Your task to perform on an android device: check out phone information Image 0: 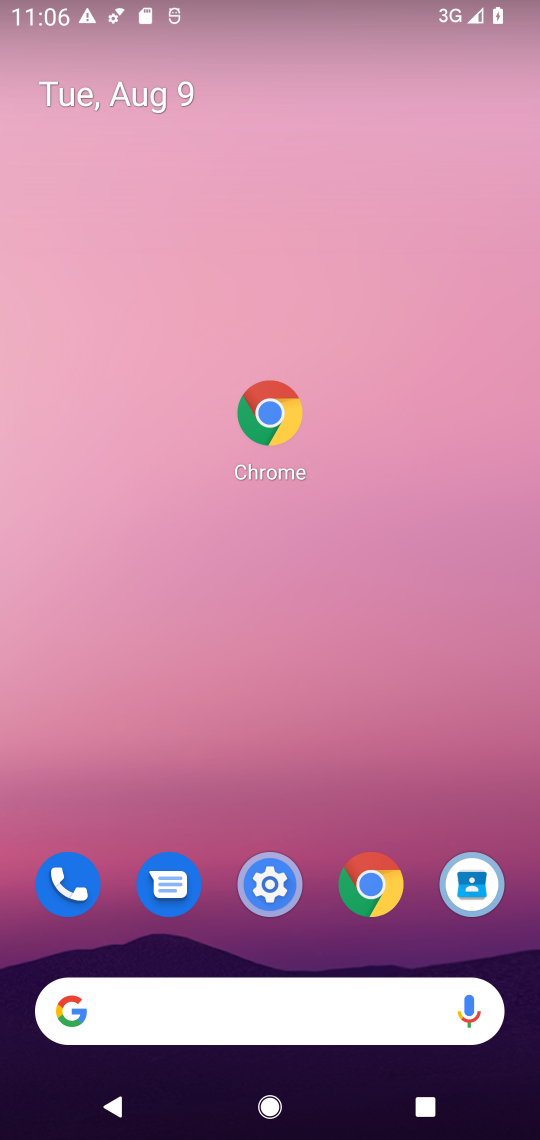
Step 0: click (55, 64)
Your task to perform on an android device: check out phone information Image 1: 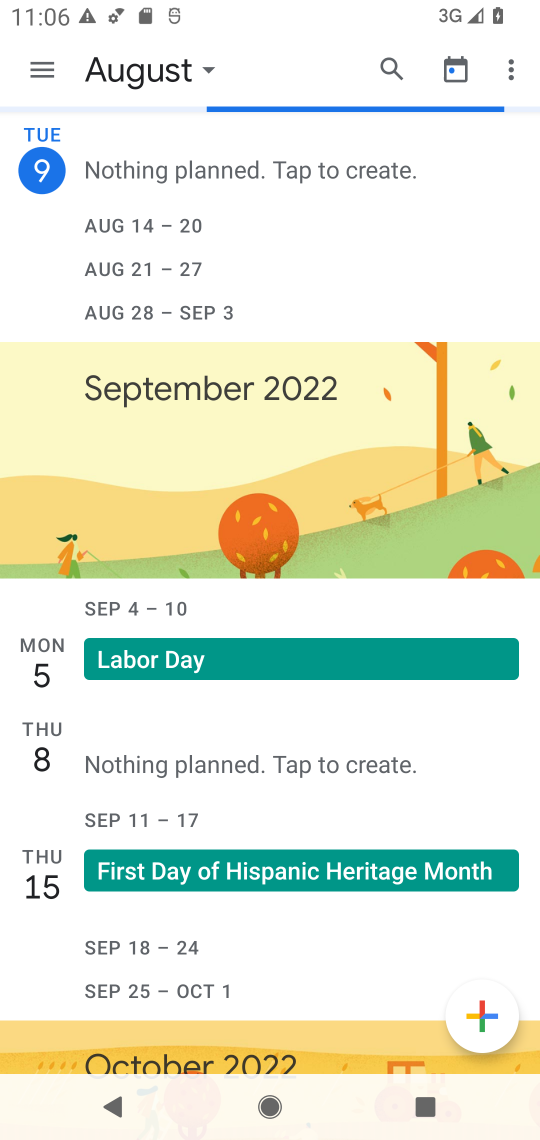
Step 1: drag from (344, 936) to (230, 206)
Your task to perform on an android device: check out phone information Image 2: 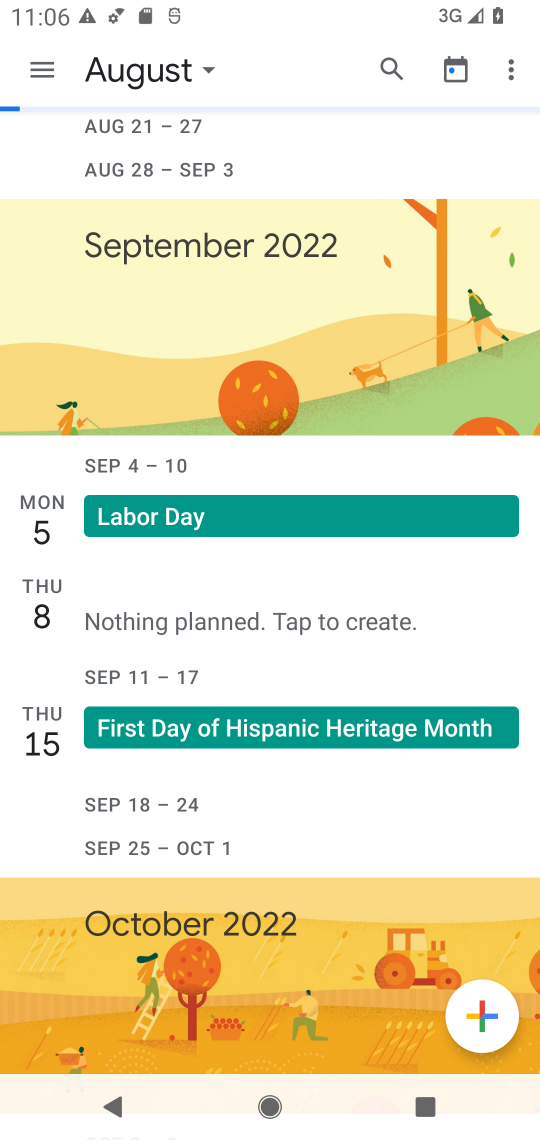
Step 2: press back button
Your task to perform on an android device: check out phone information Image 3: 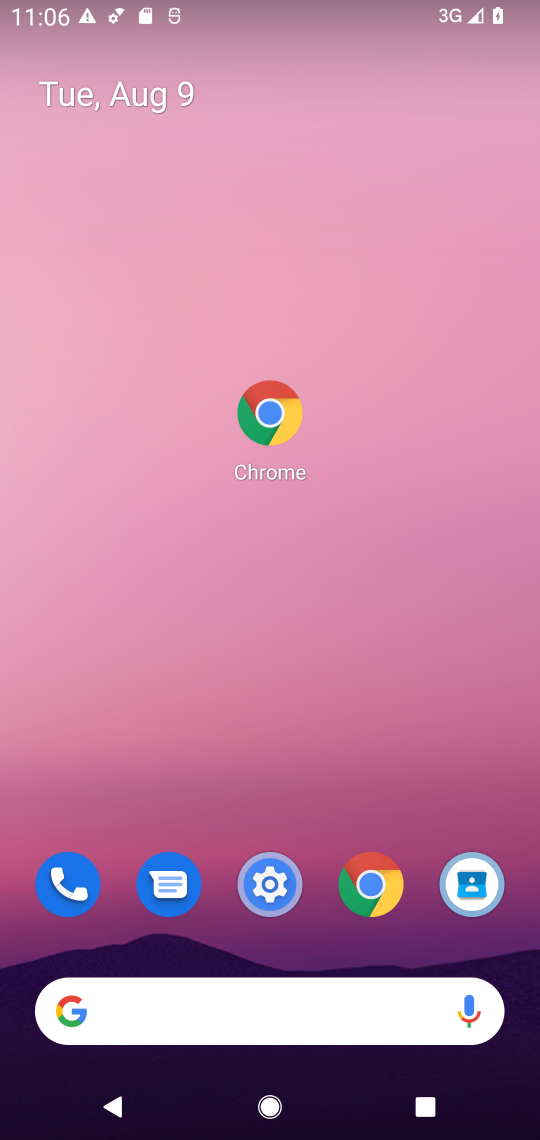
Step 3: drag from (266, 764) to (227, 361)
Your task to perform on an android device: check out phone information Image 4: 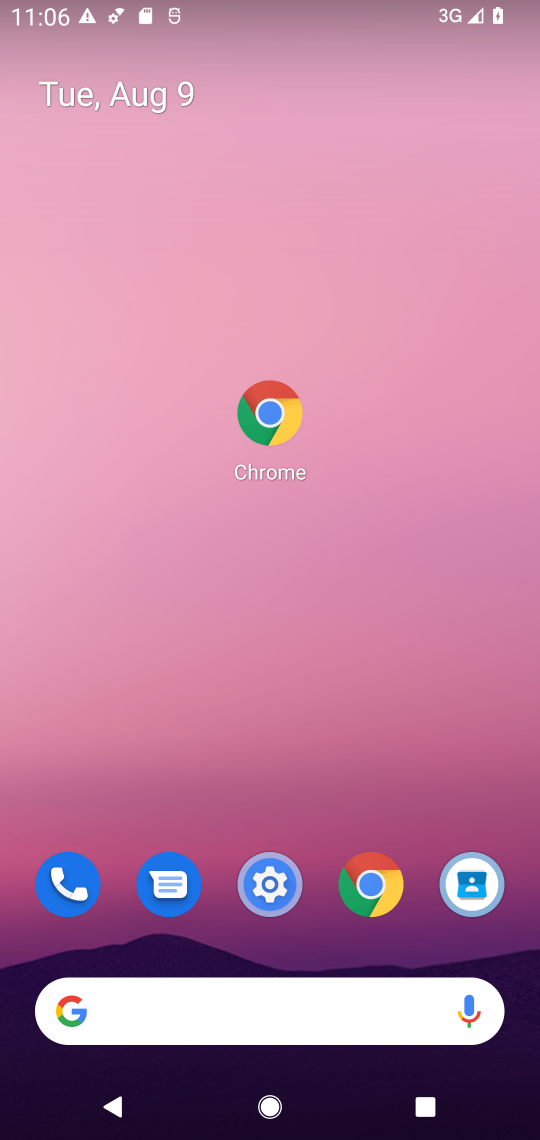
Step 4: drag from (332, 682) to (321, 317)
Your task to perform on an android device: check out phone information Image 5: 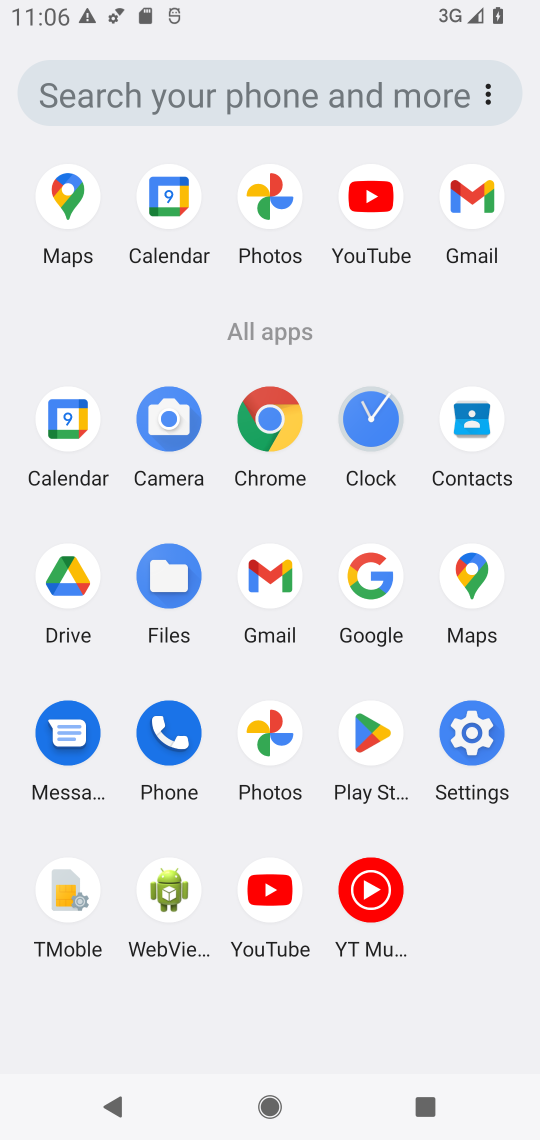
Step 5: click (489, 738)
Your task to perform on an android device: check out phone information Image 6: 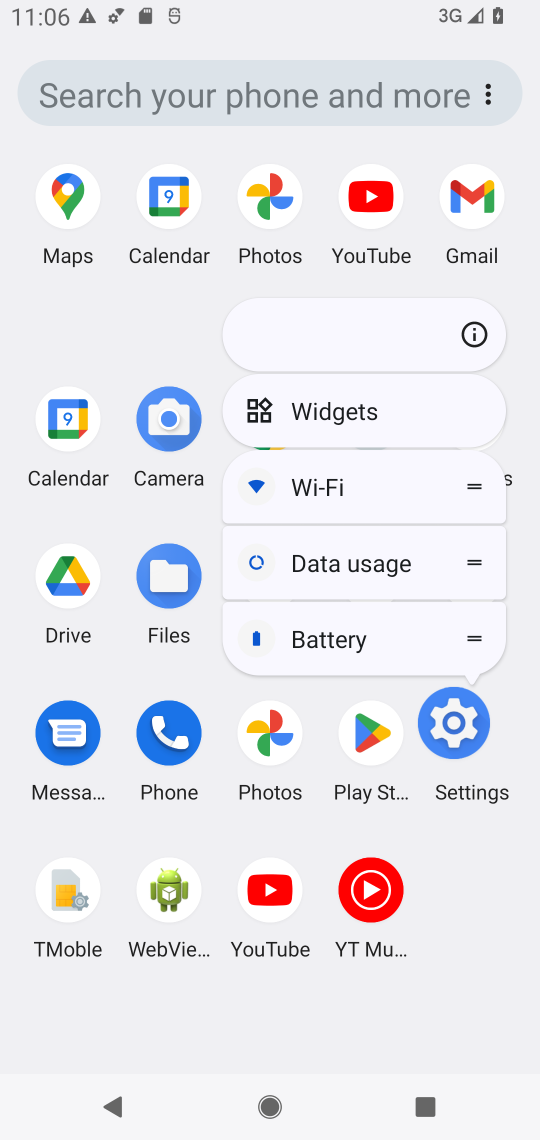
Step 6: click (482, 737)
Your task to perform on an android device: check out phone information Image 7: 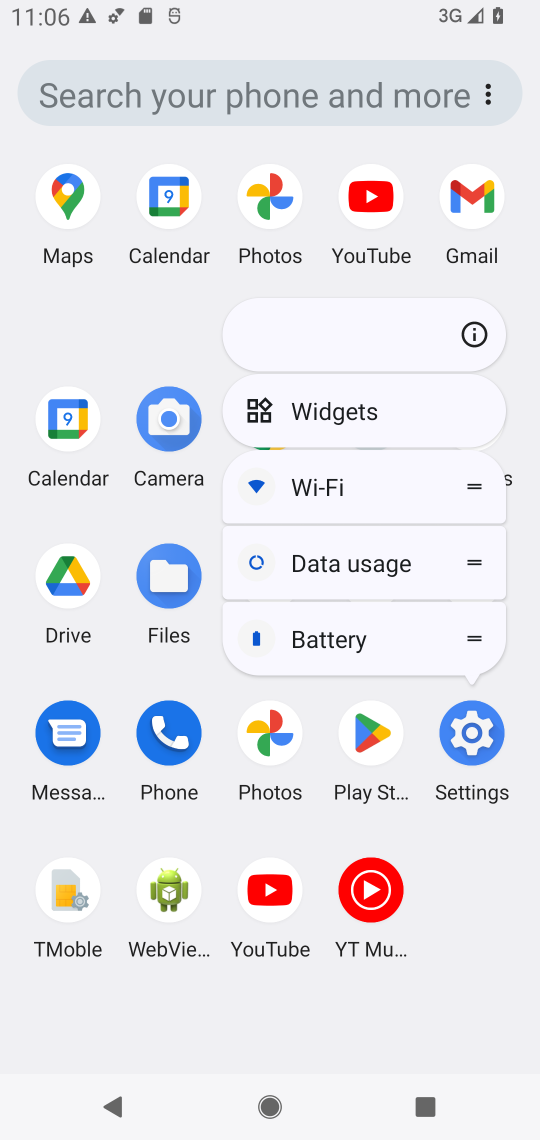
Step 7: click (485, 739)
Your task to perform on an android device: check out phone information Image 8: 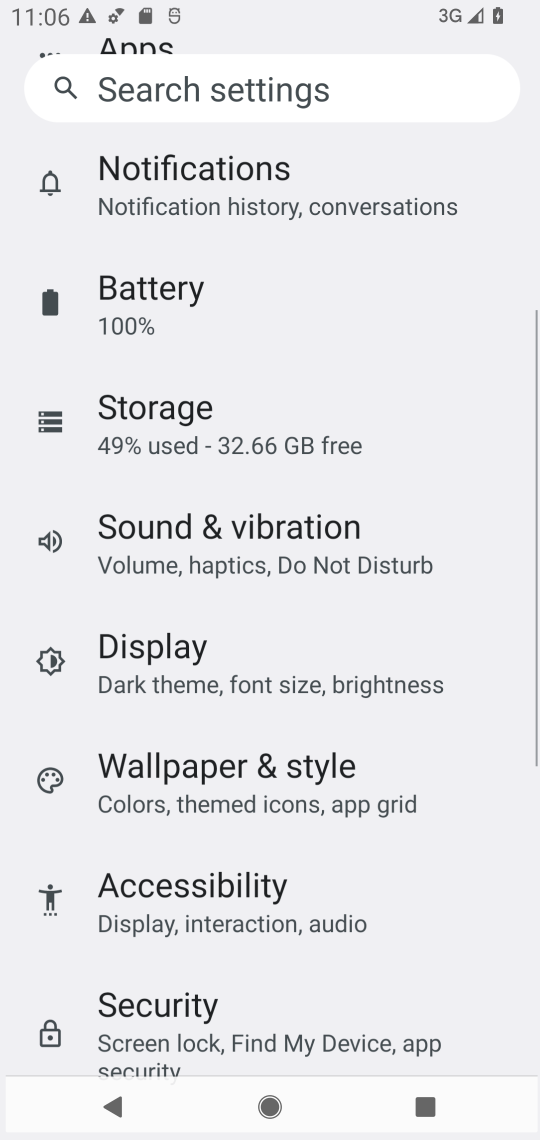
Step 8: click (479, 751)
Your task to perform on an android device: check out phone information Image 9: 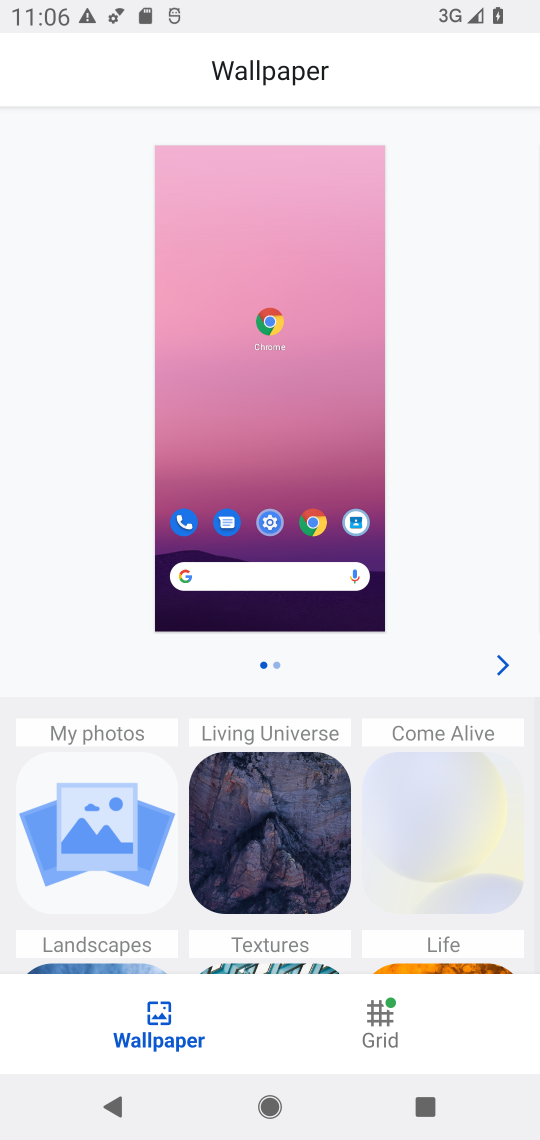
Step 9: press back button
Your task to perform on an android device: check out phone information Image 10: 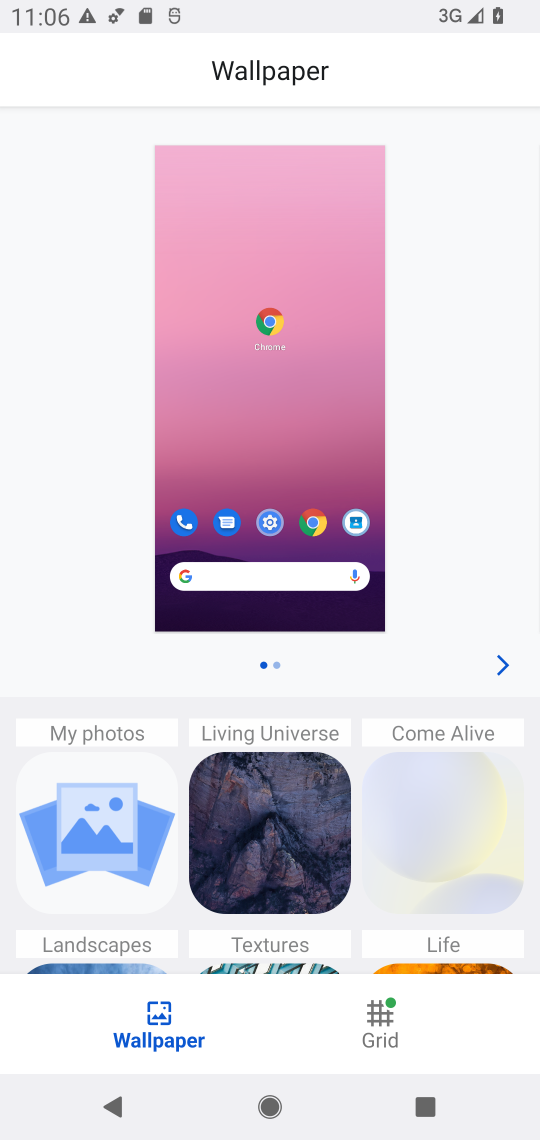
Step 10: press back button
Your task to perform on an android device: check out phone information Image 11: 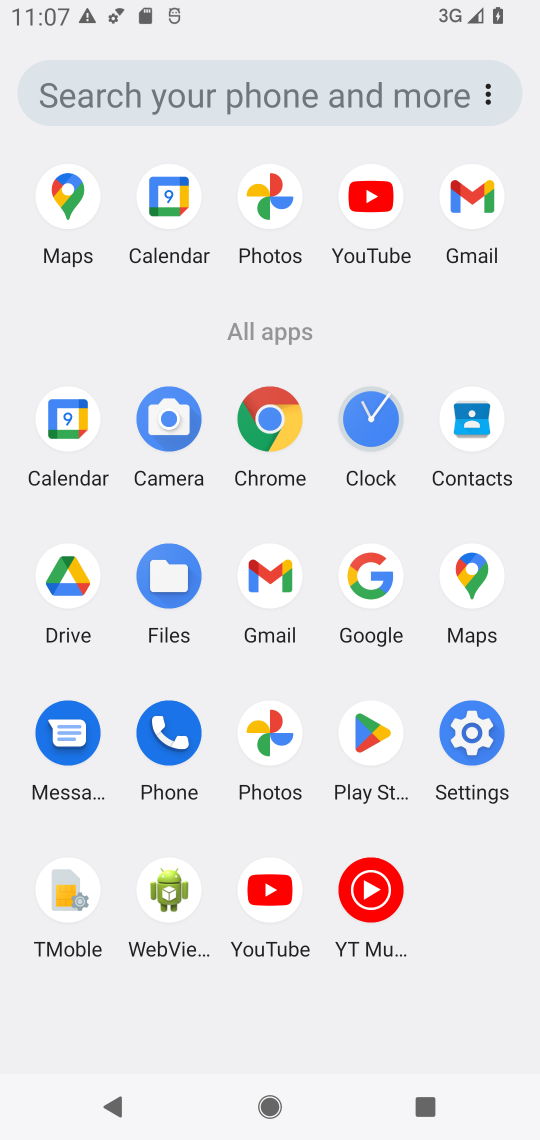
Step 11: click (487, 746)
Your task to perform on an android device: check out phone information Image 12: 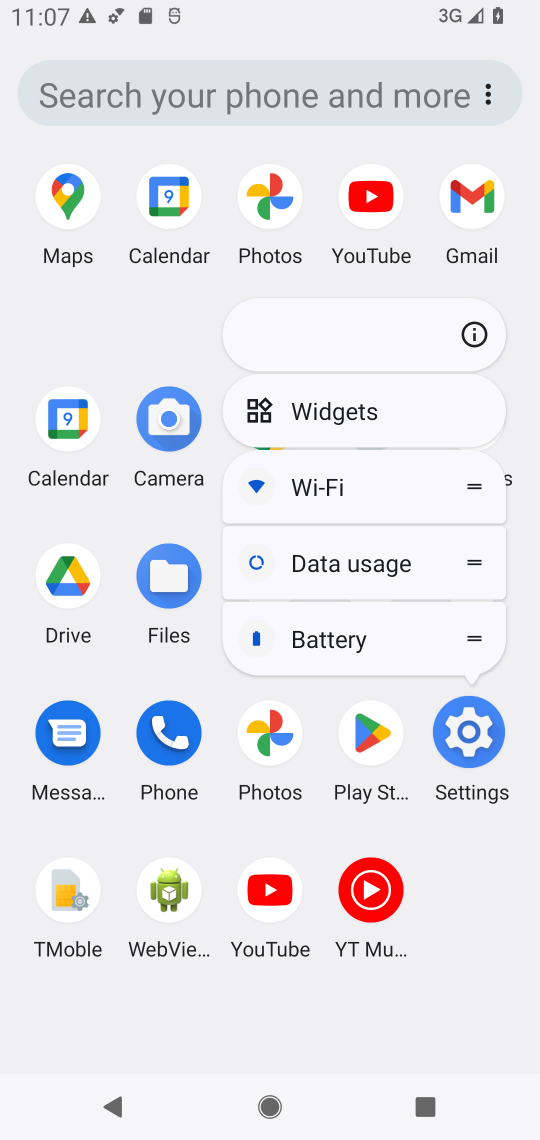
Step 12: click (462, 716)
Your task to perform on an android device: check out phone information Image 13: 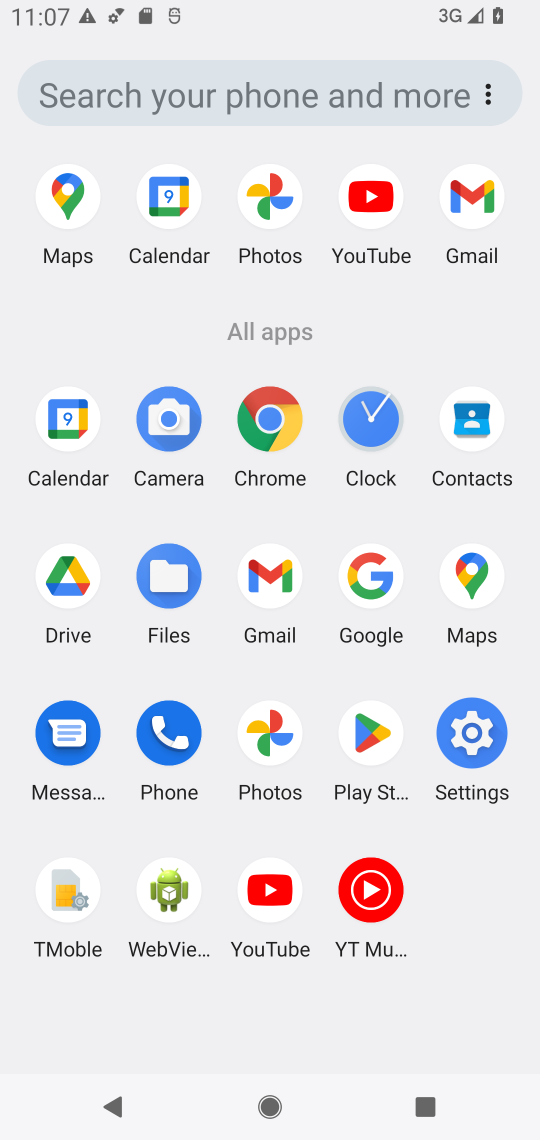
Step 13: click (447, 721)
Your task to perform on an android device: check out phone information Image 14: 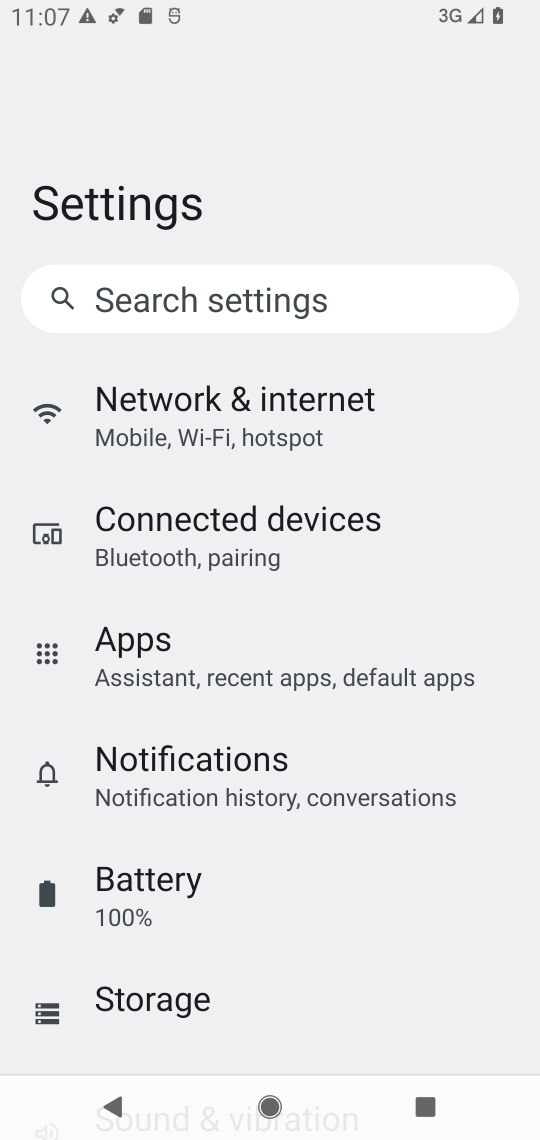
Step 14: drag from (195, 646) to (163, 251)
Your task to perform on an android device: check out phone information Image 15: 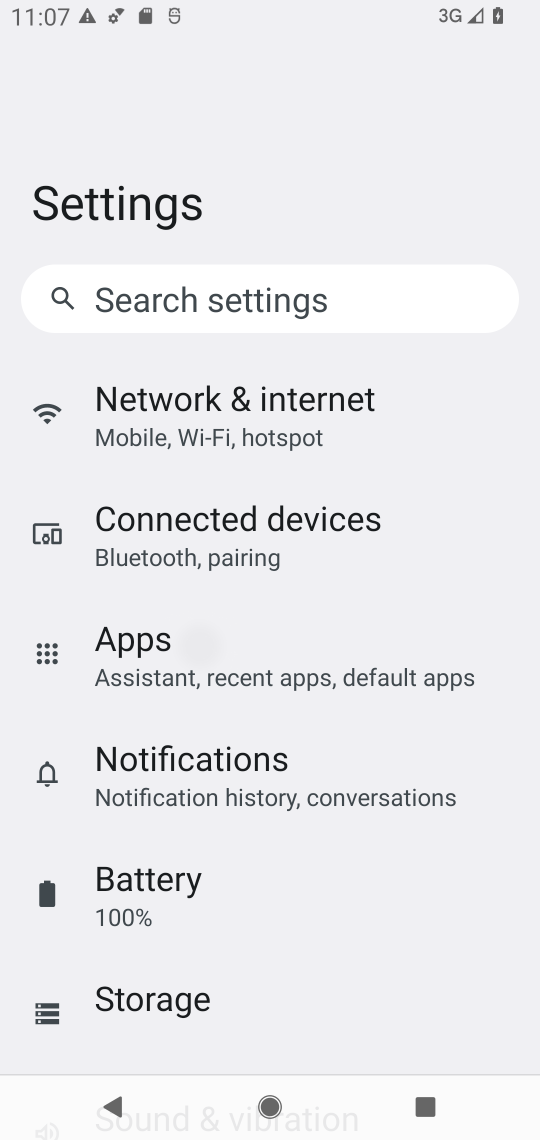
Step 15: drag from (278, 734) to (270, 517)
Your task to perform on an android device: check out phone information Image 16: 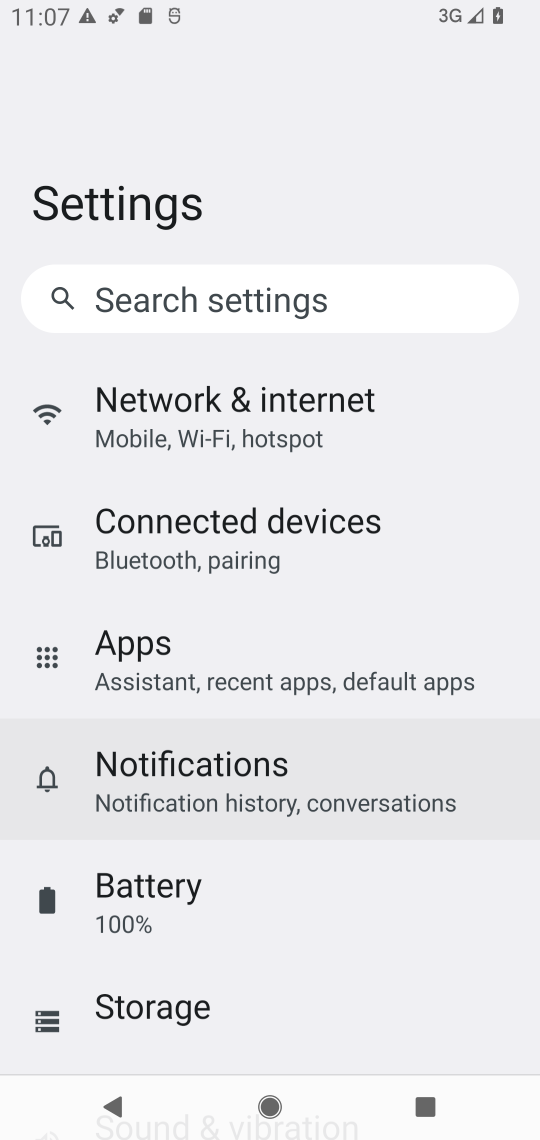
Step 16: drag from (275, 1075) to (273, 555)
Your task to perform on an android device: check out phone information Image 17: 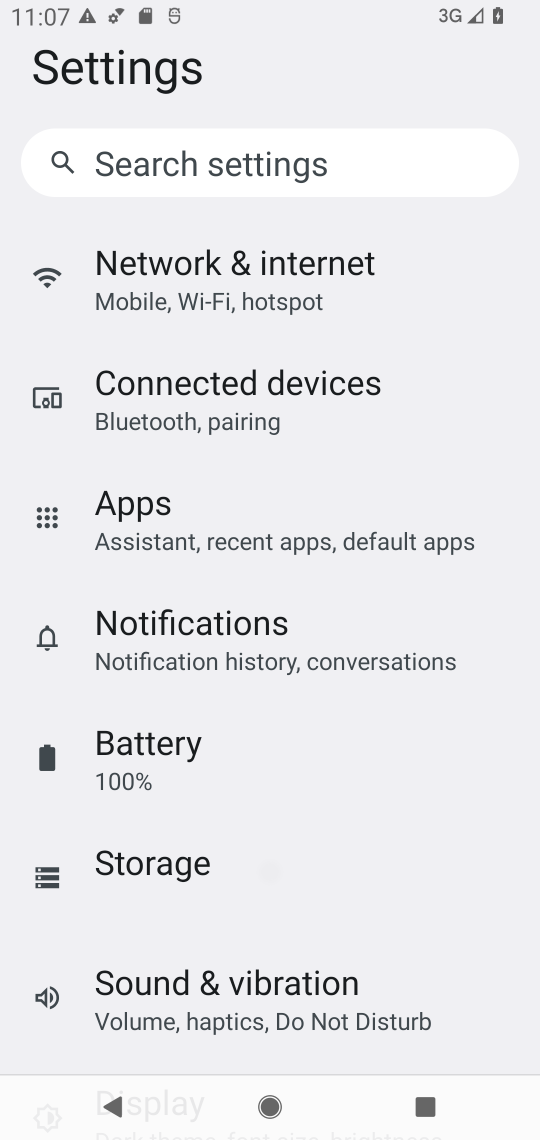
Step 17: drag from (321, 886) to (321, 485)
Your task to perform on an android device: check out phone information Image 18: 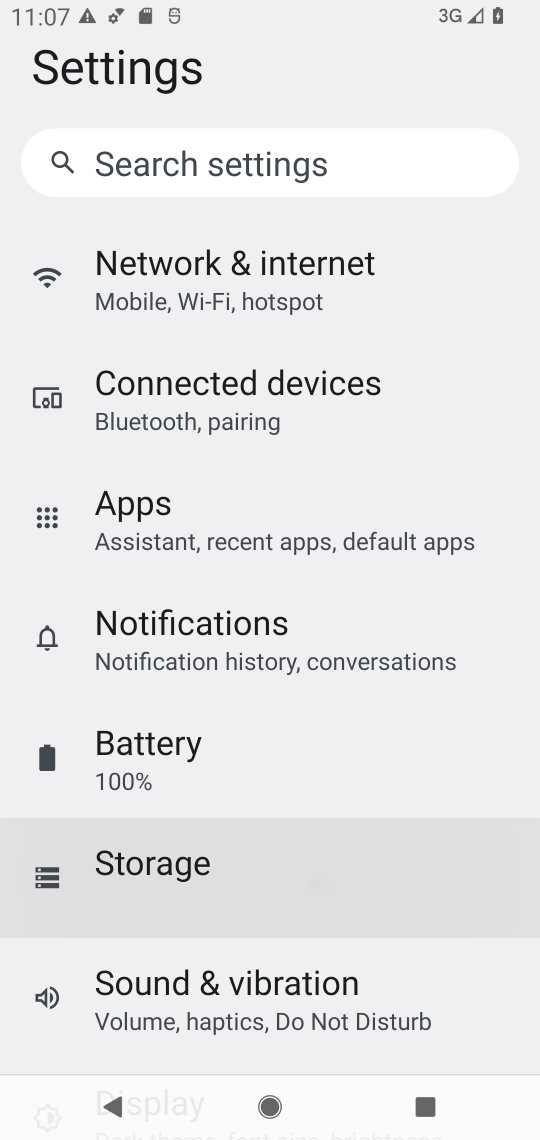
Step 18: drag from (250, 556) to (250, 430)
Your task to perform on an android device: check out phone information Image 19: 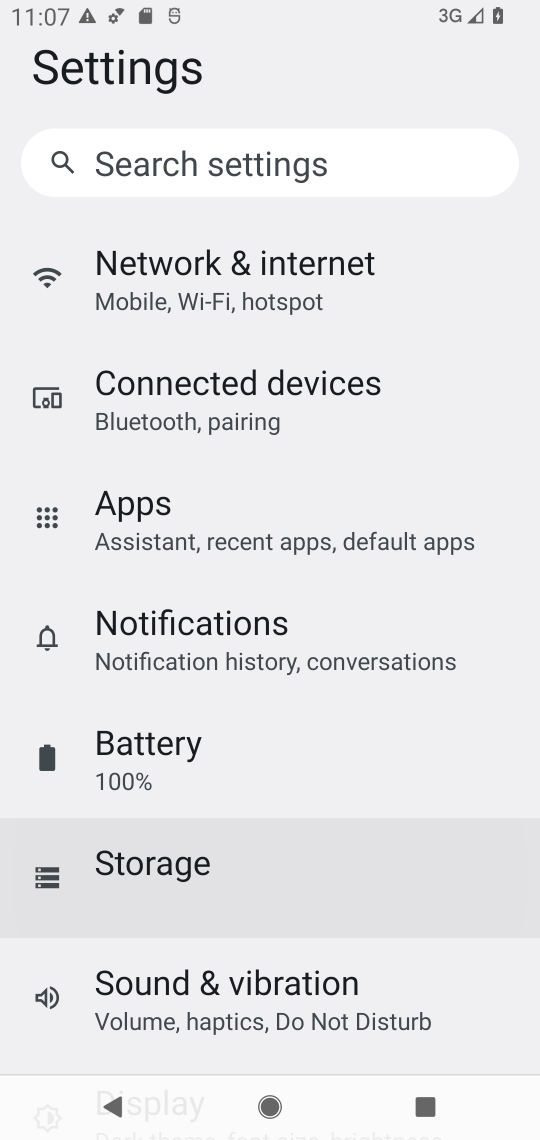
Step 19: drag from (314, 881) to (349, 420)
Your task to perform on an android device: check out phone information Image 20: 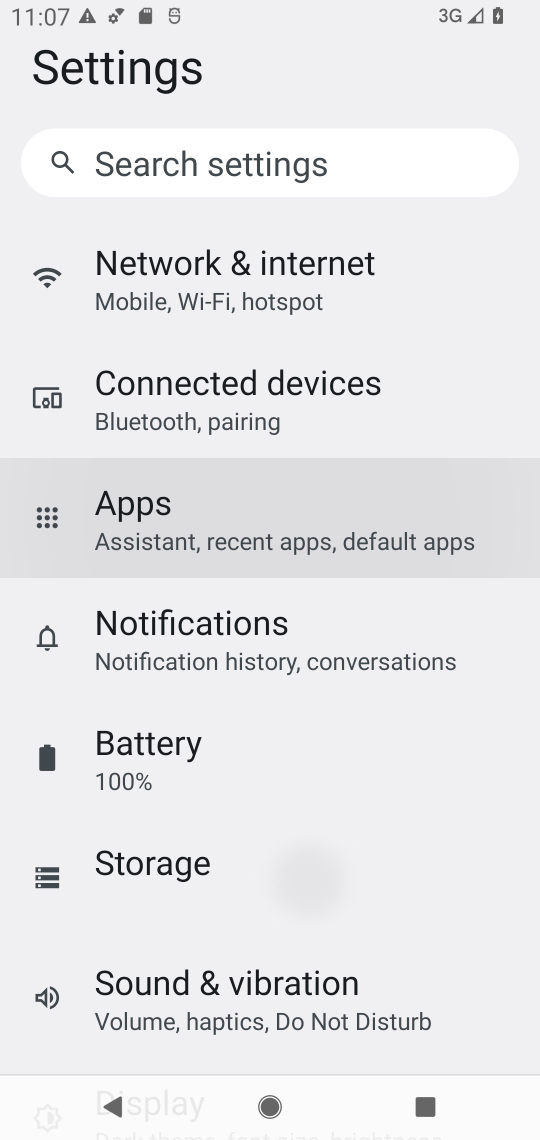
Step 20: drag from (319, 786) to (319, 389)
Your task to perform on an android device: check out phone information Image 21: 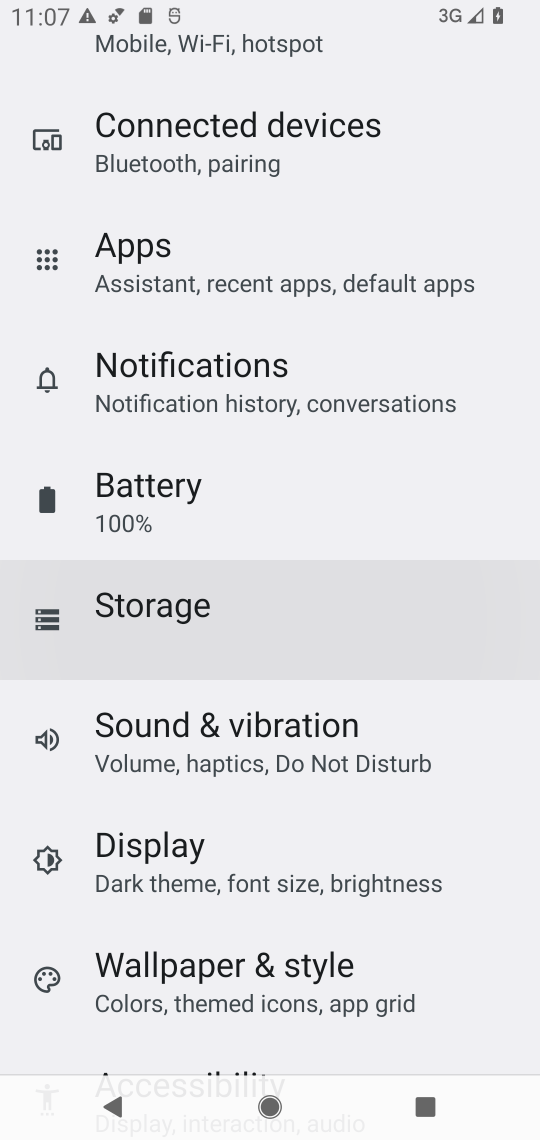
Step 21: drag from (218, 805) to (217, 336)
Your task to perform on an android device: check out phone information Image 22: 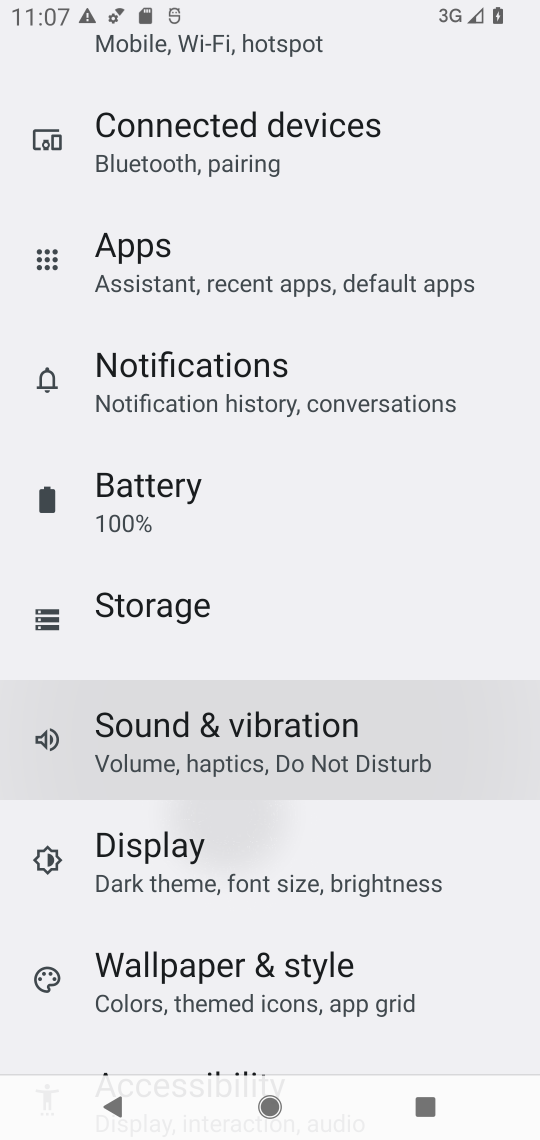
Step 22: drag from (233, 879) to (229, 200)
Your task to perform on an android device: check out phone information Image 23: 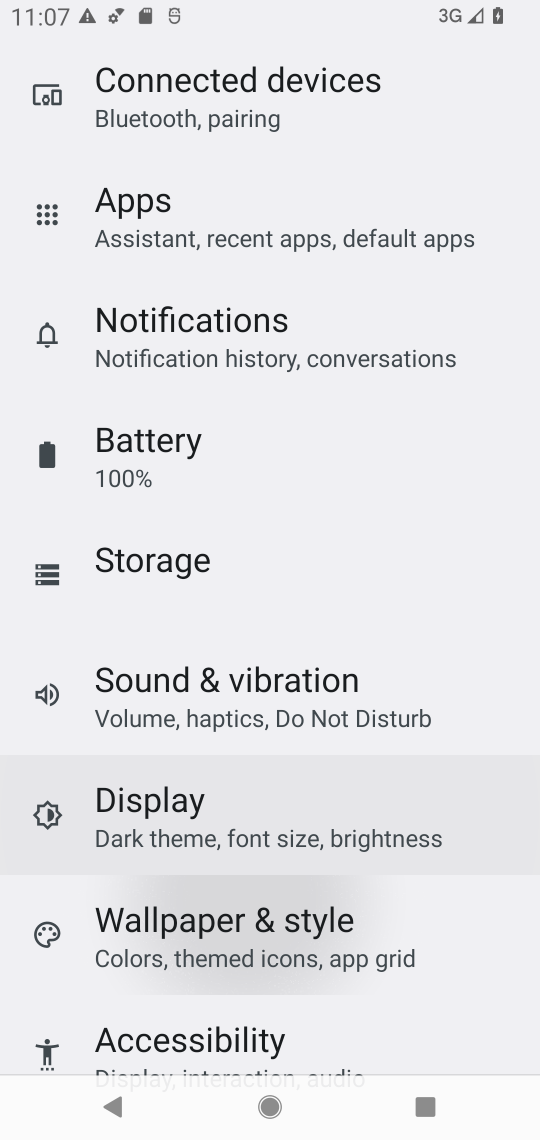
Step 23: drag from (262, 881) to (224, 476)
Your task to perform on an android device: check out phone information Image 24: 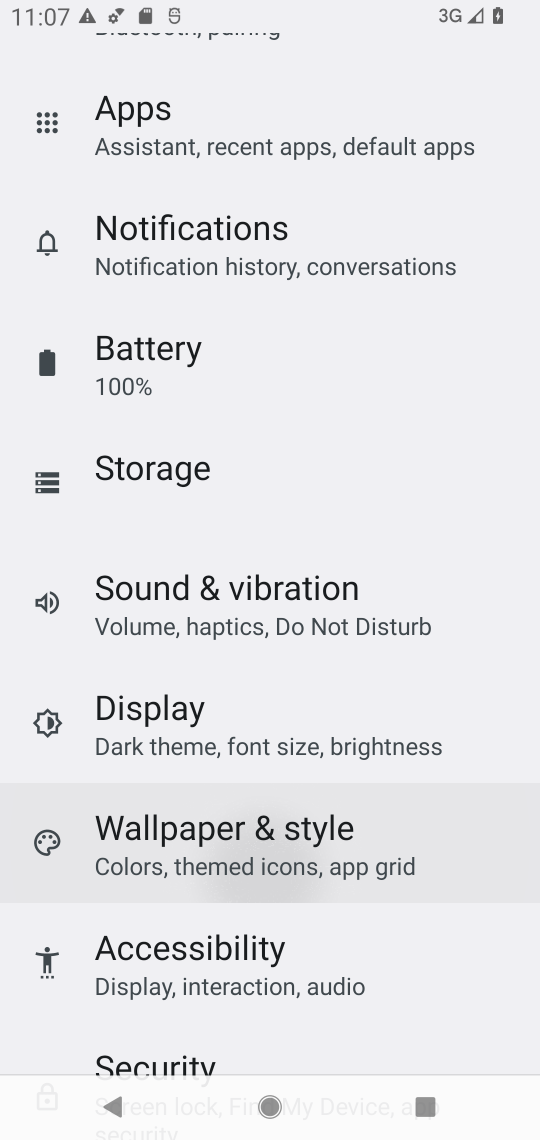
Step 24: drag from (270, 863) to (279, 340)
Your task to perform on an android device: check out phone information Image 25: 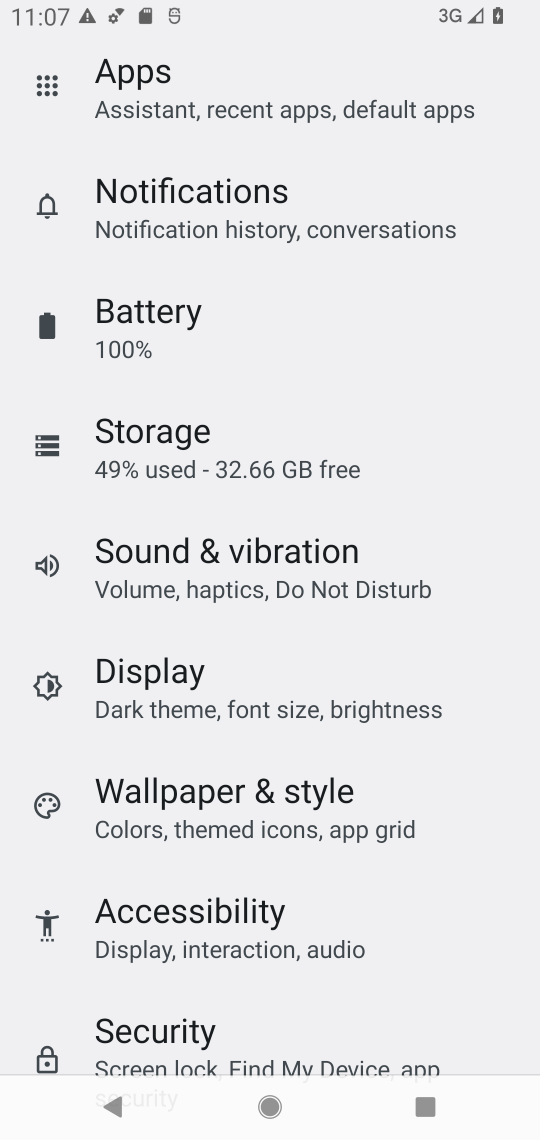
Step 25: drag from (268, 909) to (222, 438)
Your task to perform on an android device: check out phone information Image 26: 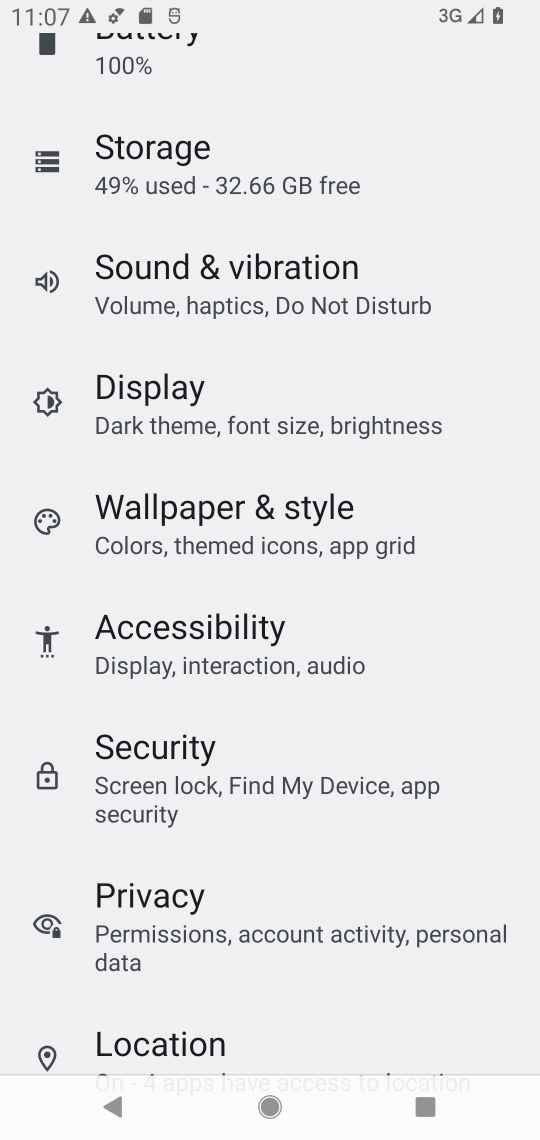
Step 26: drag from (231, 873) to (148, 421)
Your task to perform on an android device: check out phone information Image 27: 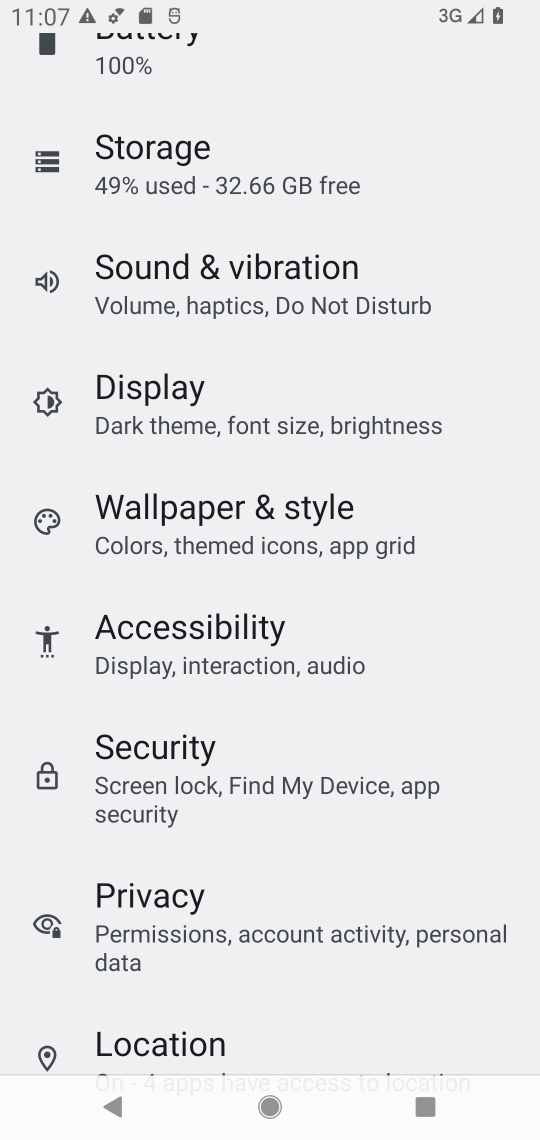
Step 27: drag from (231, 964) to (196, 418)
Your task to perform on an android device: check out phone information Image 28: 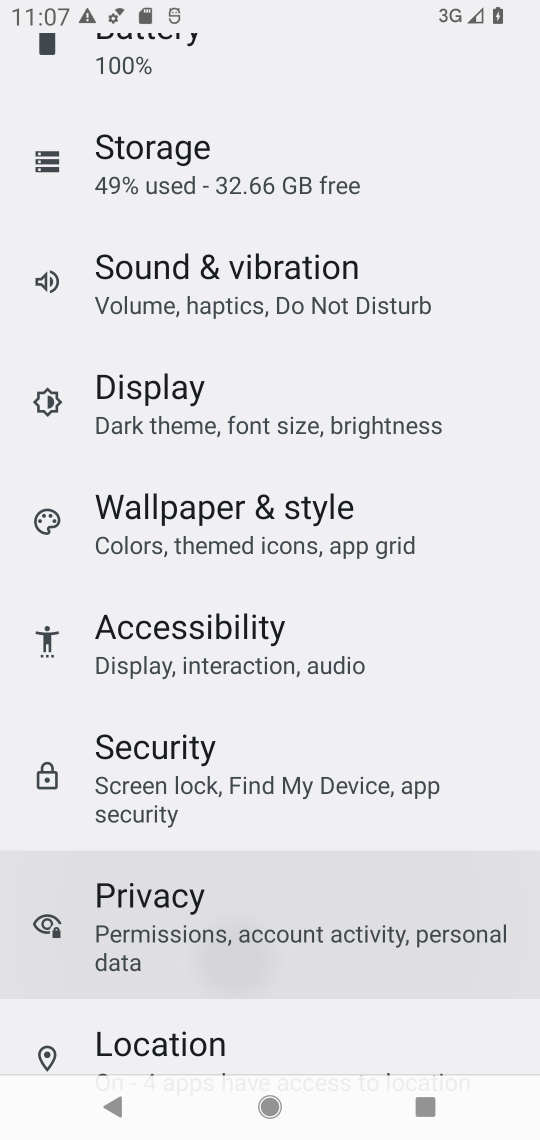
Step 28: drag from (297, 925) to (235, 482)
Your task to perform on an android device: check out phone information Image 29: 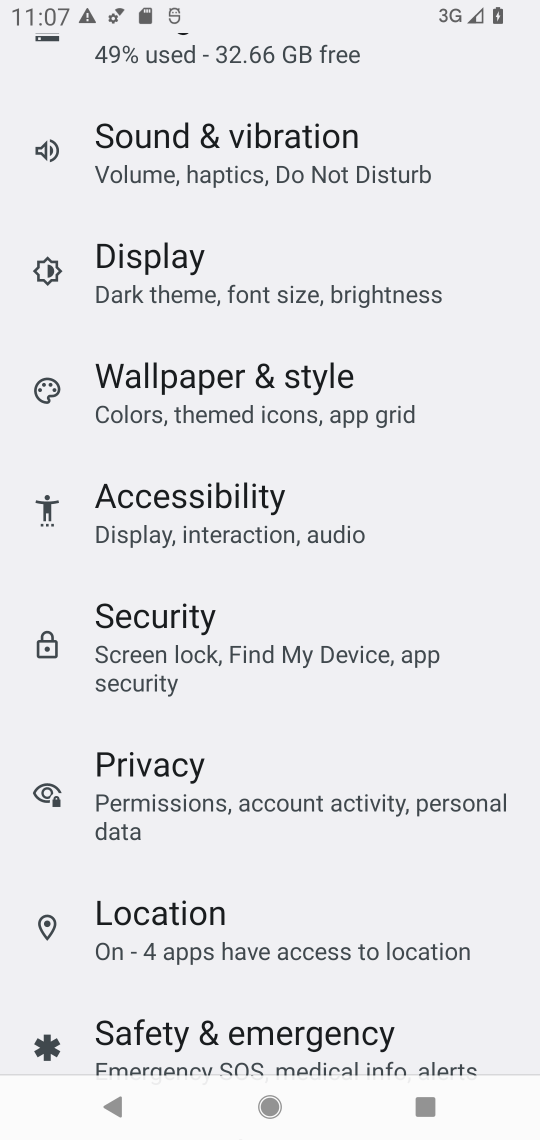
Step 29: drag from (254, 828) to (210, 348)
Your task to perform on an android device: check out phone information Image 30: 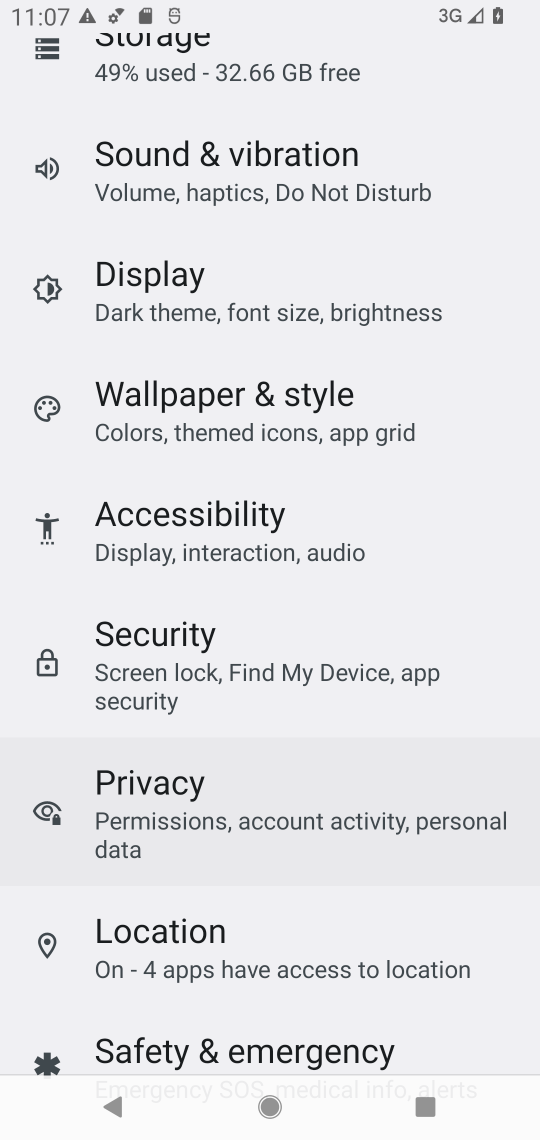
Step 30: drag from (328, 833) to (315, 460)
Your task to perform on an android device: check out phone information Image 31: 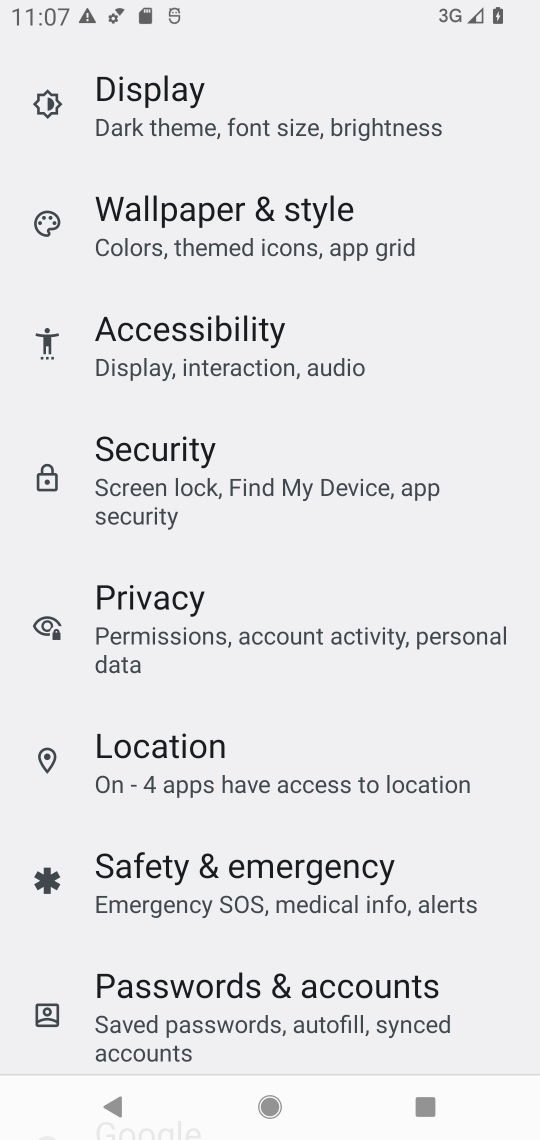
Step 31: drag from (205, 901) to (189, 710)
Your task to perform on an android device: check out phone information Image 32: 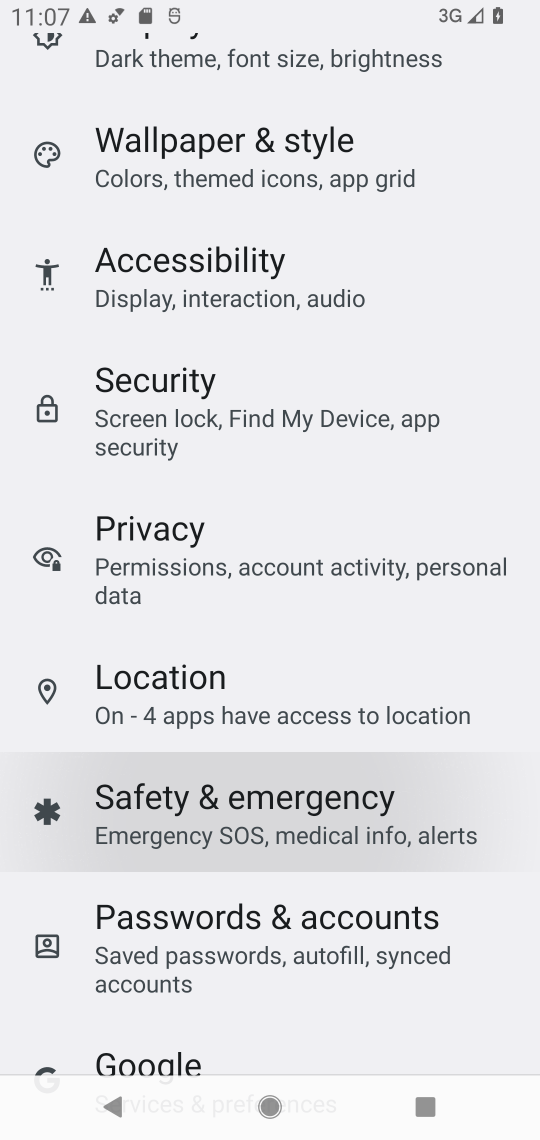
Step 32: click (267, 727)
Your task to perform on an android device: check out phone information Image 33: 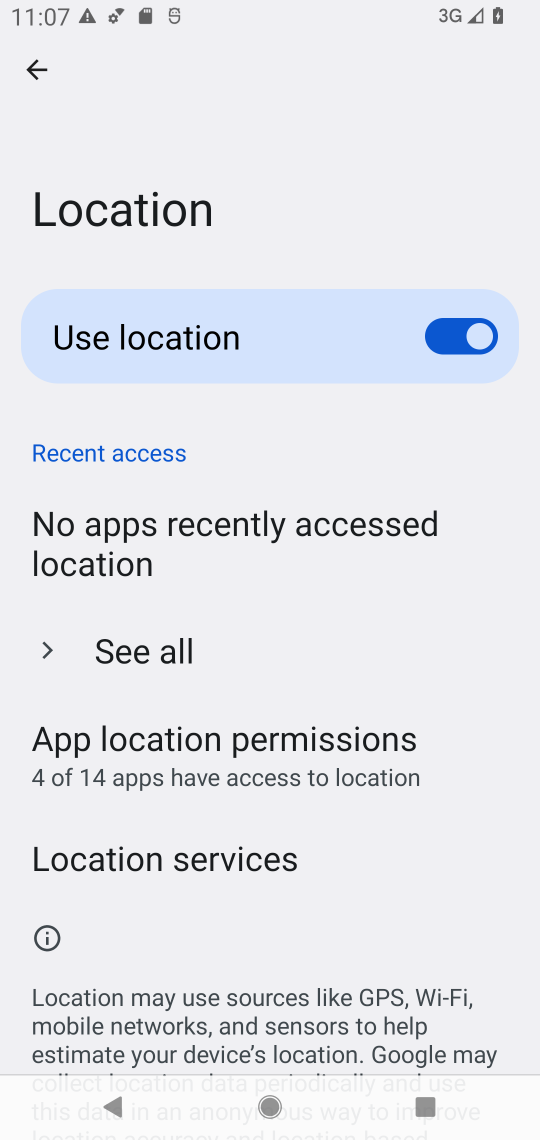
Step 33: click (166, 745)
Your task to perform on an android device: check out phone information Image 34: 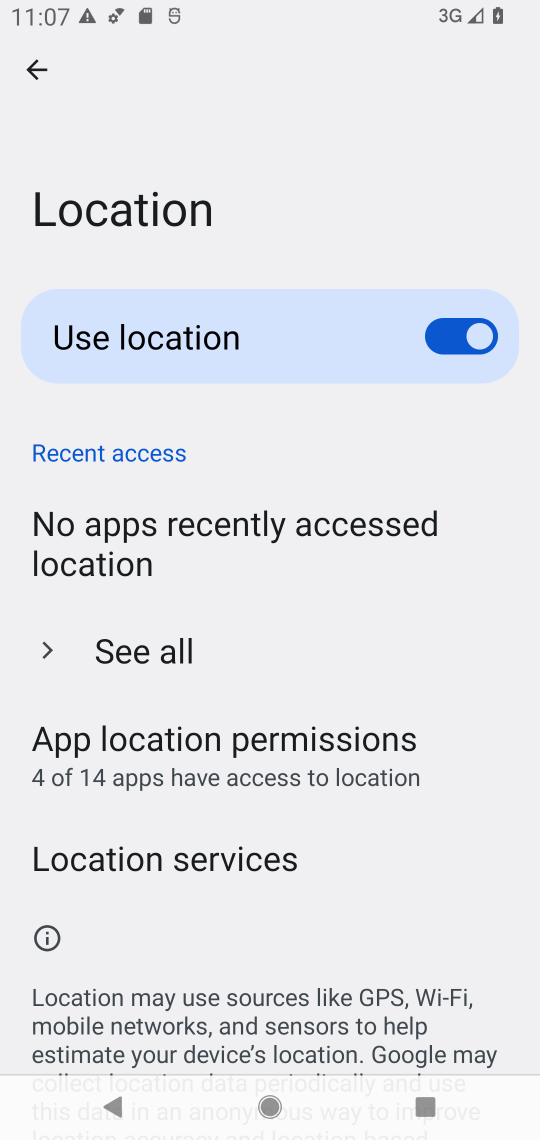
Step 34: click (171, 737)
Your task to perform on an android device: check out phone information Image 35: 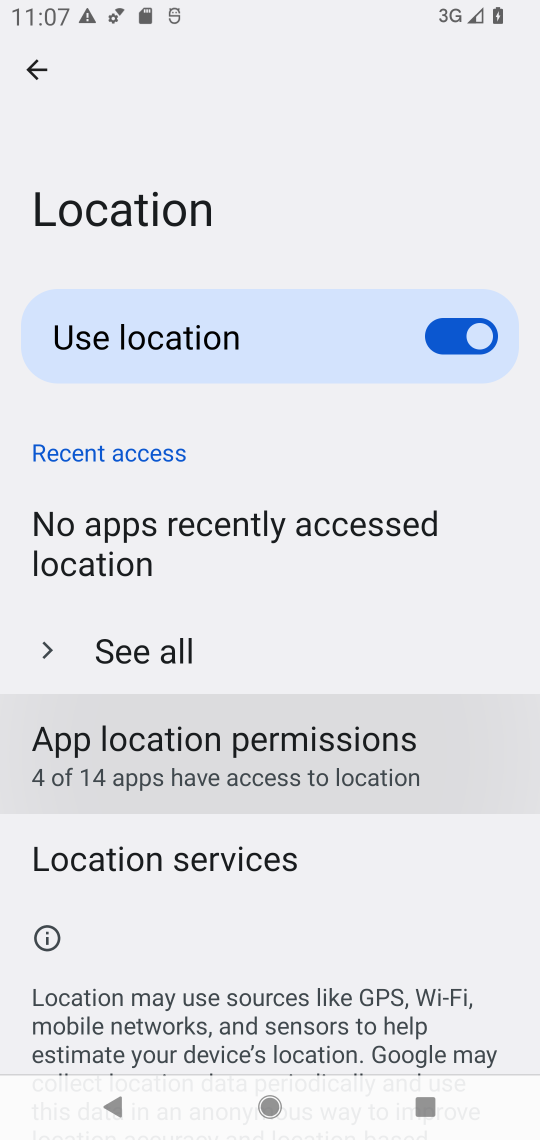
Step 35: click (160, 760)
Your task to perform on an android device: check out phone information Image 36: 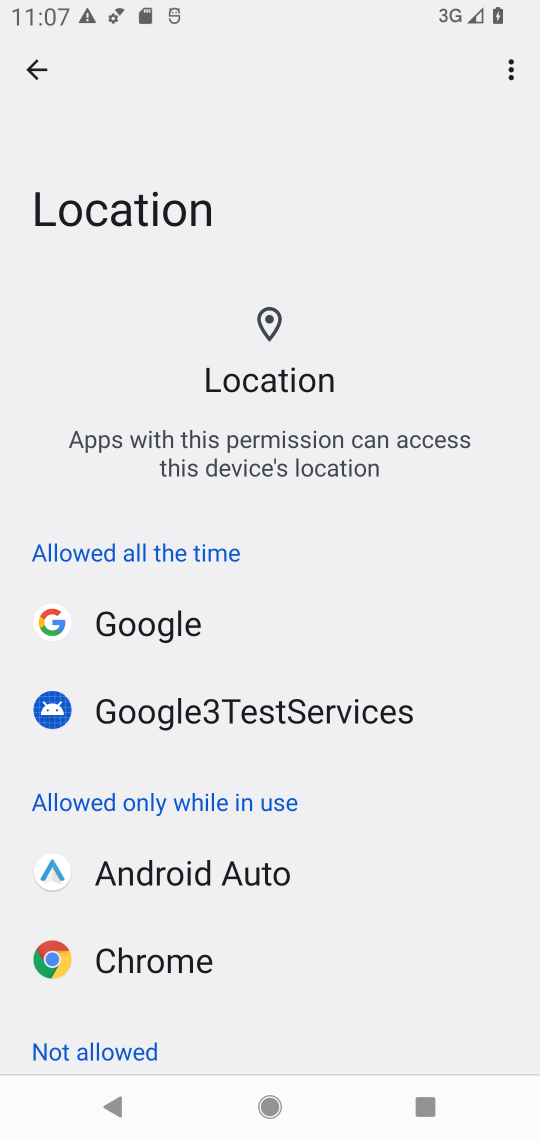
Step 36: task complete